Your task to perform on an android device: all mails in gmail Image 0: 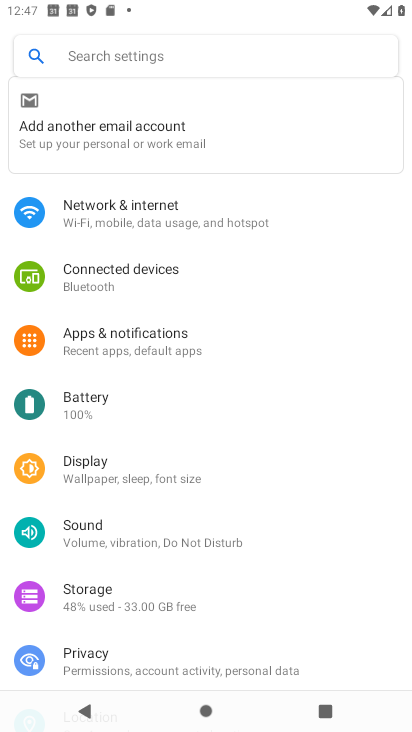
Step 0: press home button
Your task to perform on an android device: all mails in gmail Image 1: 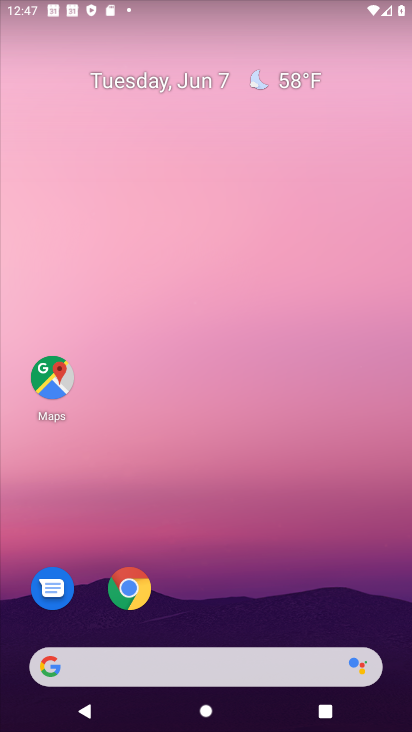
Step 1: drag from (297, 596) to (231, 157)
Your task to perform on an android device: all mails in gmail Image 2: 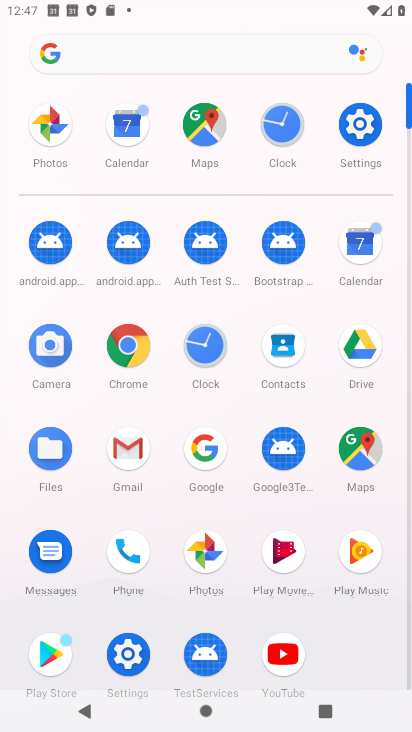
Step 2: click (102, 462)
Your task to perform on an android device: all mails in gmail Image 3: 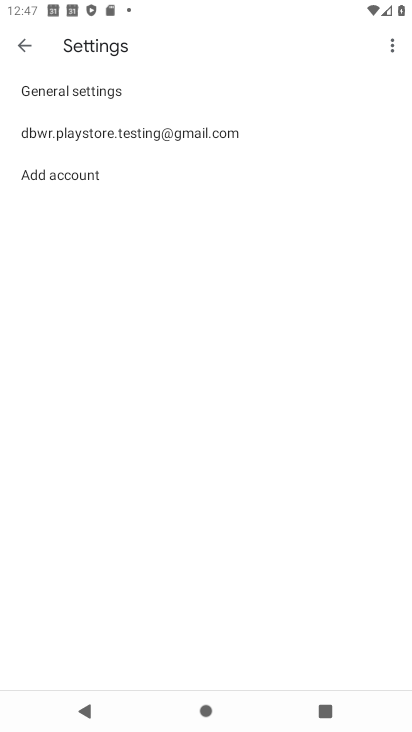
Step 3: task complete